Your task to perform on an android device: set the stopwatch Image 0: 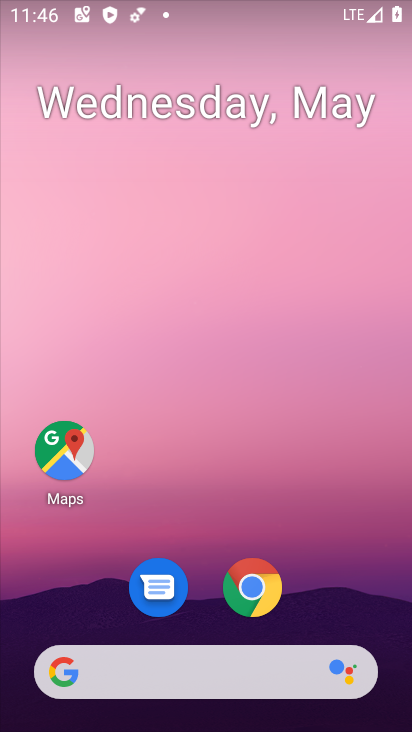
Step 0: drag from (332, 587) to (256, 0)
Your task to perform on an android device: set the stopwatch Image 1: 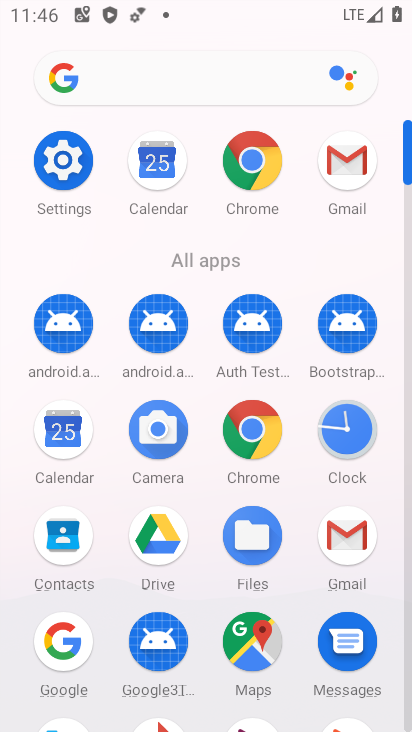
Step 1: click (363, 432)
Your task to perform on an android device: set the stopwatch Image 2: 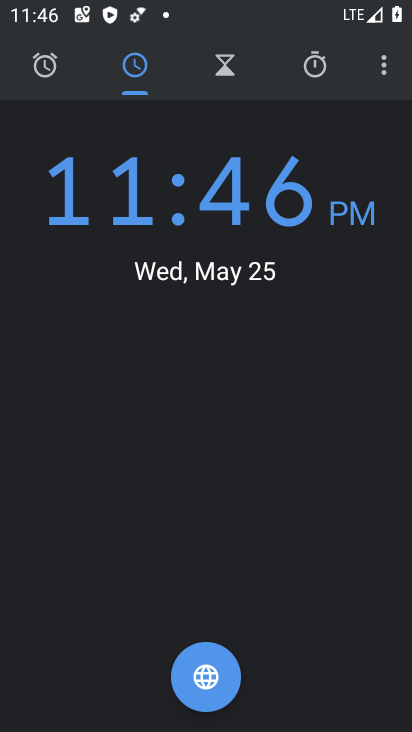
Step 2: click (385, 66)
Your task to perform on an android device: set the stopwatch Image 3: 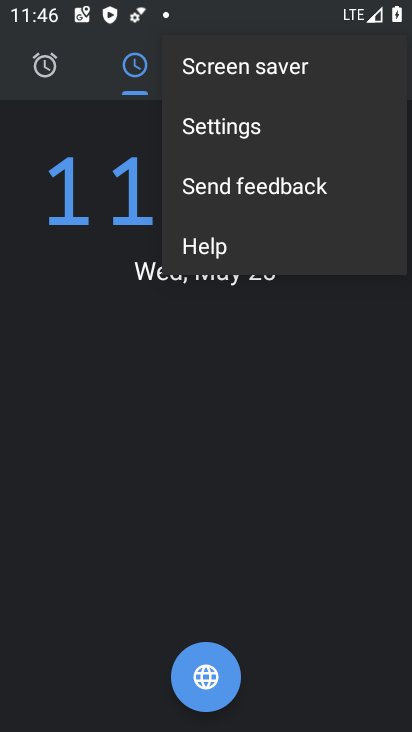
Step 3: click (244, 137)
Your task to perform on an android device: set the stopwatch Image 4: 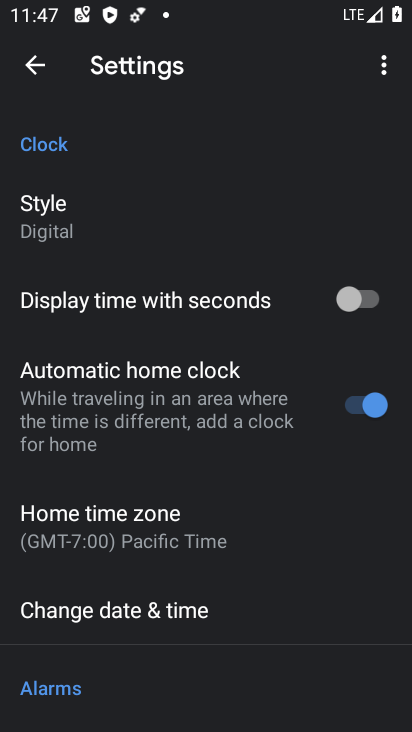
Step 4: drag from (224, 569) to (159, 220)
Your task to perform on an android device: set the stopwatch Image 5: 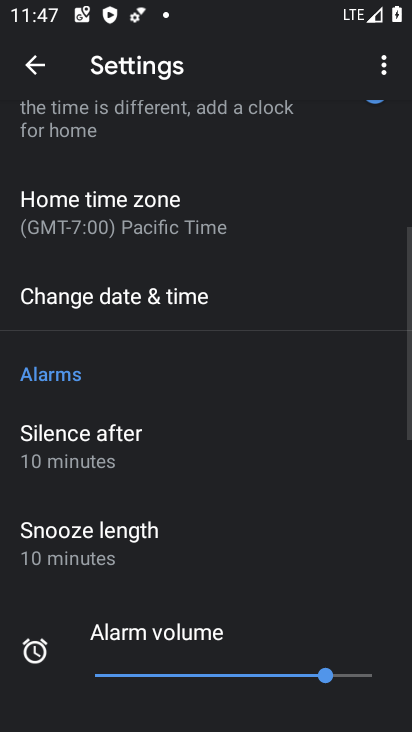
Step 5: click (21, 68)
Your task to perform on an android device: set the stopwatch Image 6: 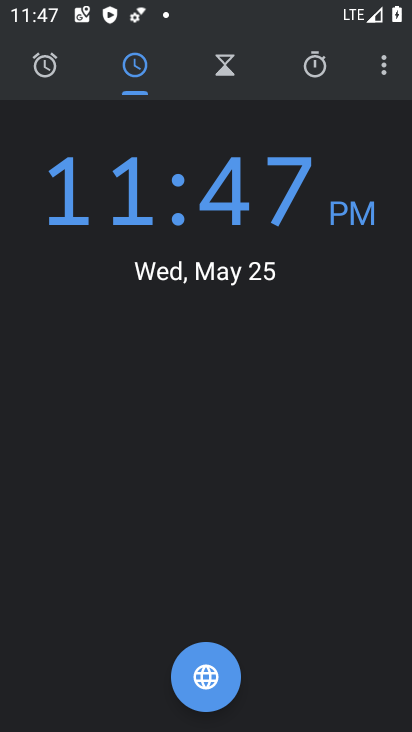
Step 6: click (327, 63)
Your task to perform on an android device: set the stopwatch Image 7: 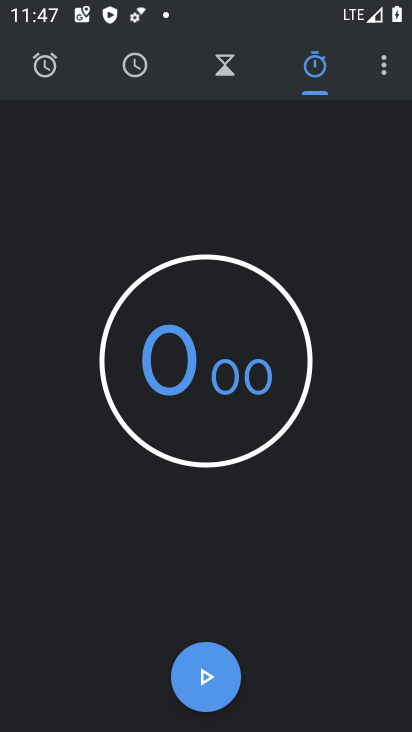
Step 7: task complete